Your task to perform on an android device: Turn on the flashlight Image 0: 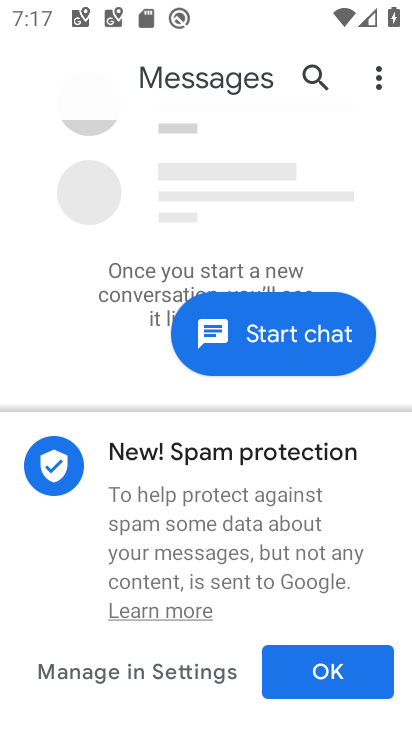
Step 0: press home button
Your task to perform on an android device: Turn on the flashlight Image 1: 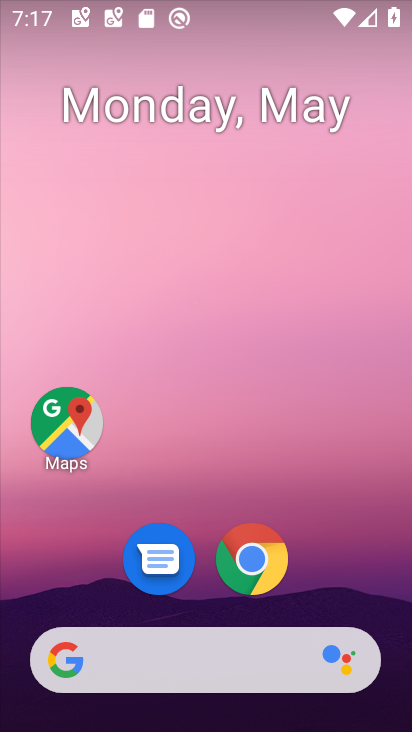
Step 1: click (363, 320)
Your task to perform on an android device: Turn on the flashlight Image 2: 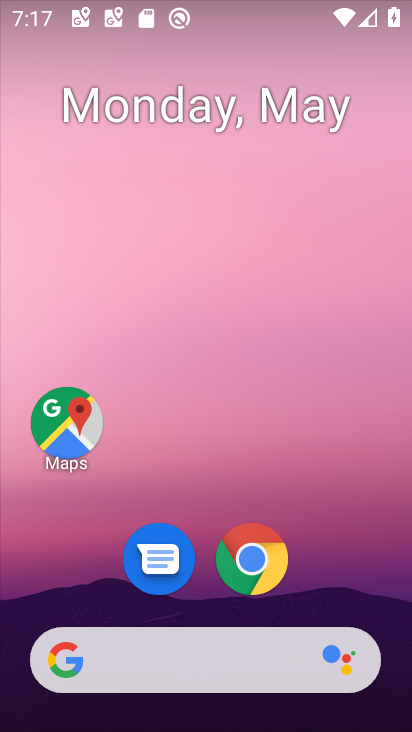
Step 2: drag from (411, 658) to (363, 320)
Your task to perform on an android device: Turn on the flashlight Image 3: 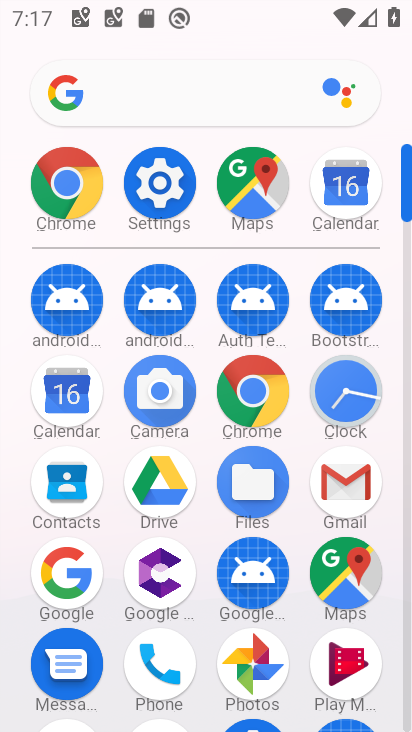
Step 3: drag from (390, 623) to (378, 285)
Your task to perform on an android device: Turn on the flashlight Image 4: 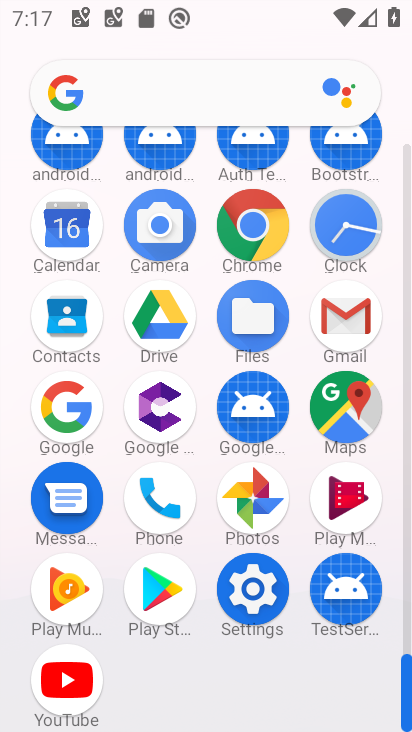
Step 4: click (268, 603)
Your task to perform on an android device: Turn on the flashlight Image 5: 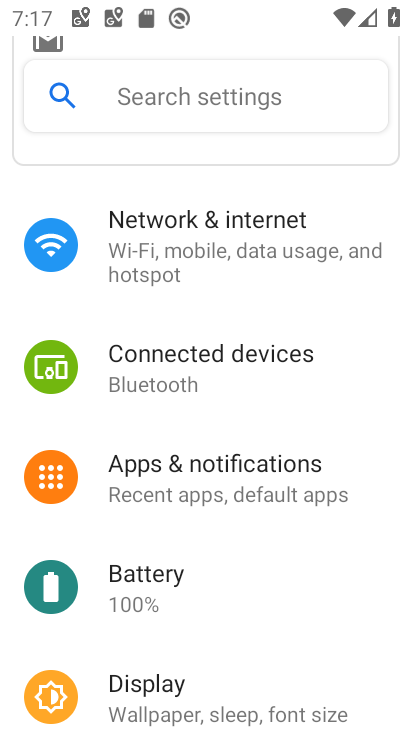
Step 5: task complete